Your task to perform on an android device: Do I have any events tomorrow? Image 0: 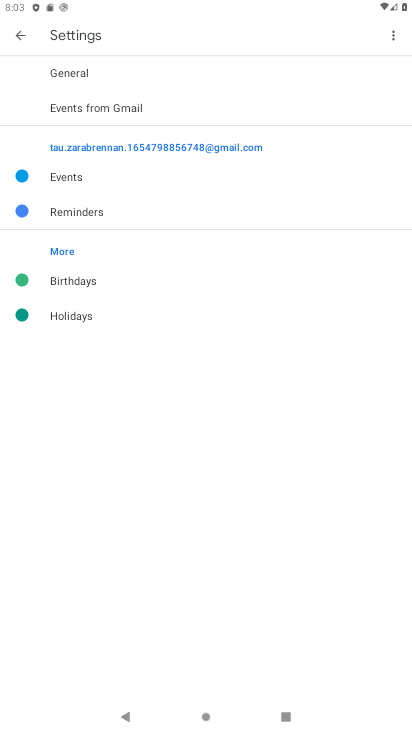
Step 0: press home button
Your task to perform on an android device: Do I have any events tomorrow? Image 1: 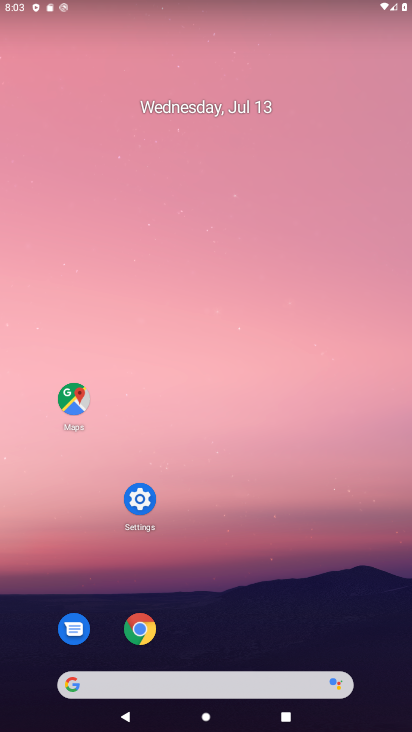
Step 1: drag from (395, 710) to (327, 74)
Your task to perform on an android device: Do I have any events tomorrow? Image 2: 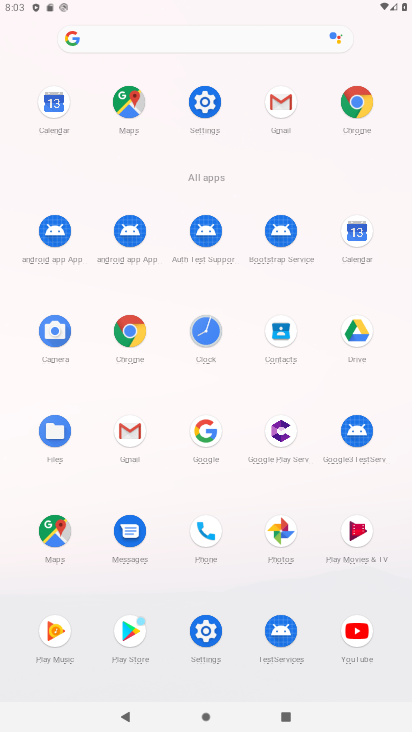
Step 2: click (362, 229)
Your task to perform on an android device: Do I have any events tomorrow? Image 3: 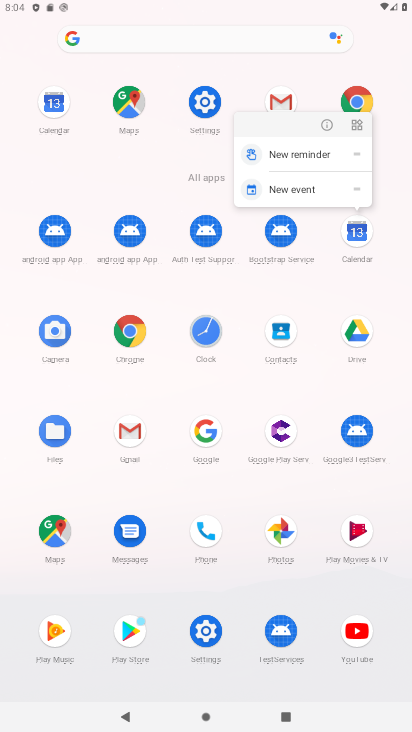
Step 3: click (359, 230)
Your task to perform on an android device: Do I have any events tomorrow? Image 4: 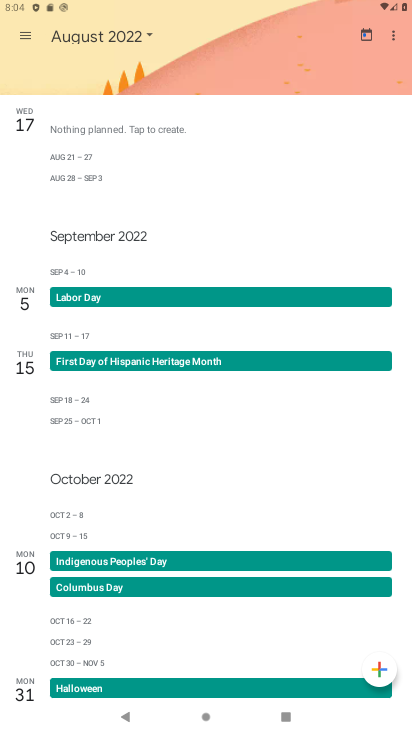
Step 4: click (146, 32)
Your task to perform on an android device: Do I have any events tomorrow? Image 5: 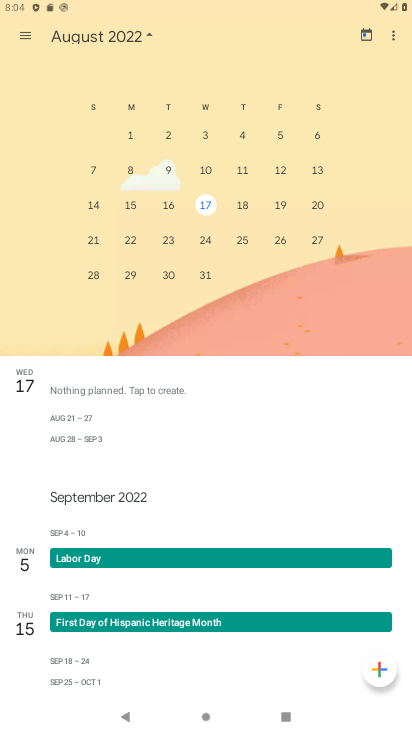
Step 5: drag from (80, 160) to (358, 149)
Your task to perform on an android device: Do I have any events tomorrow? Image 6: 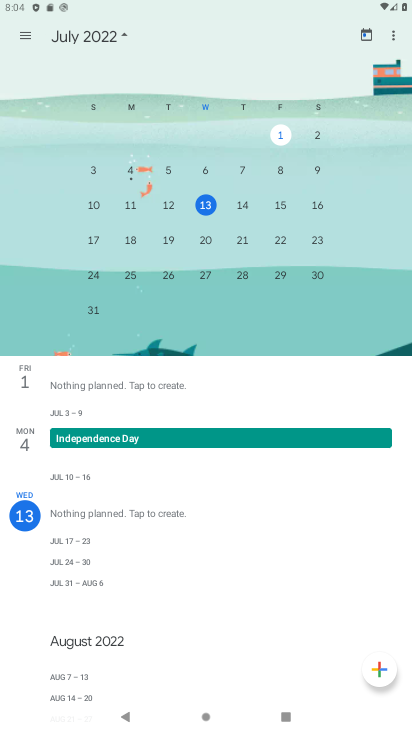
Step 6: click (240, 199)
Your task to perform on an android device: Do I have any events tomorrow? Image 7: 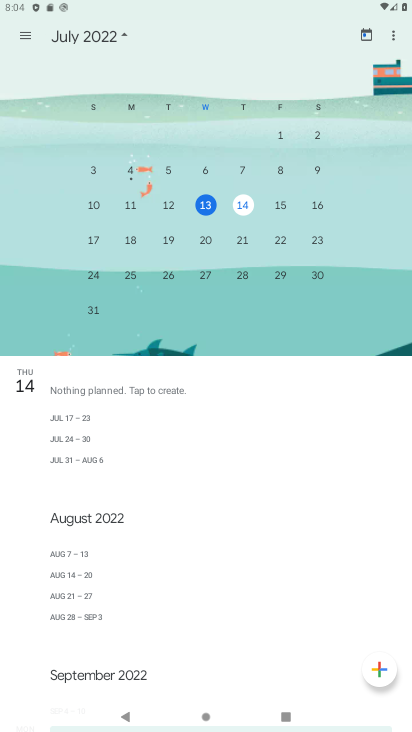
Step 7: task complete